Your task to perform on an android device: Check the news Image 0: 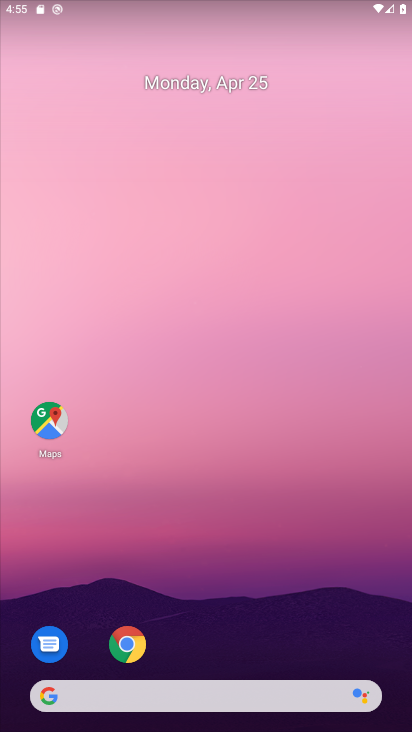
Step 0: drag from (252, 546) to (215, 121)
Your task to perform on an android device: Check the news Image 1: 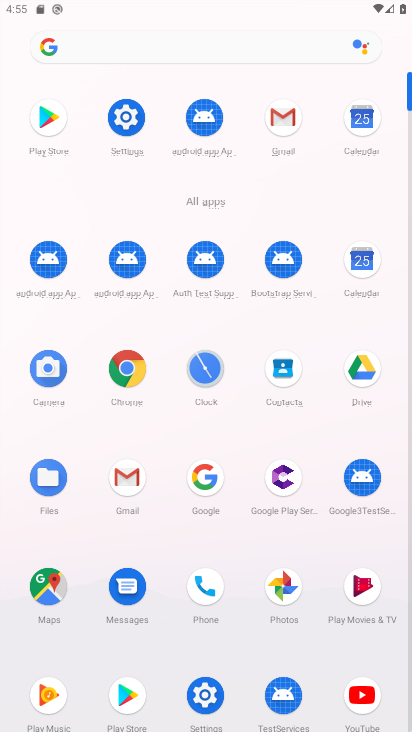
Step 1: click (206, 475)
Your task to perform on an android device: Check the news Image 2: 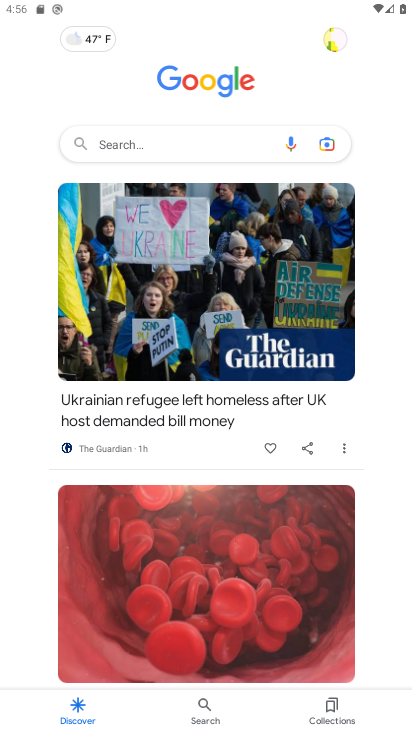
Step 2: task complete